Your task to perform on an android device: change the clock display to analog Image 0: 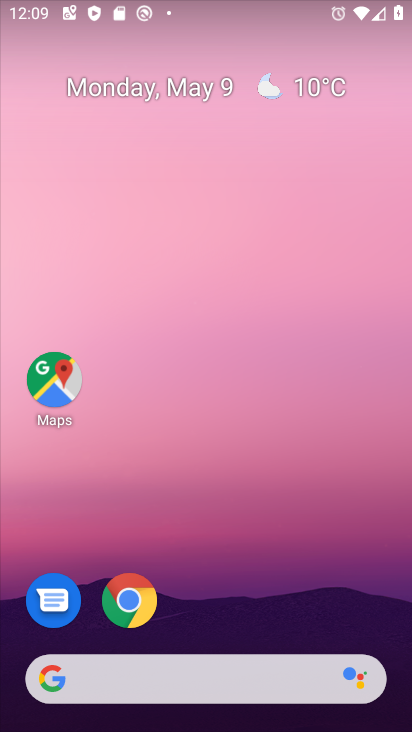
Step 0: drag from (245, 615) to (308, 179)
Your task to perform on an android device: change the clock display to analog Image 1: 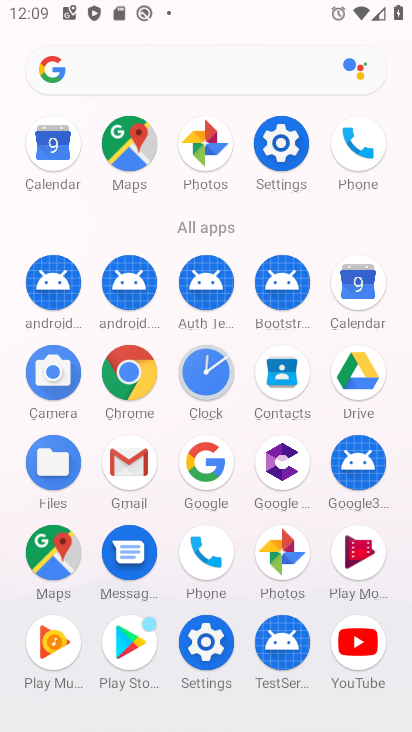
Step 1: click (216, 369)
Your task to perform on an android device: change the clock display to analog Image 2: 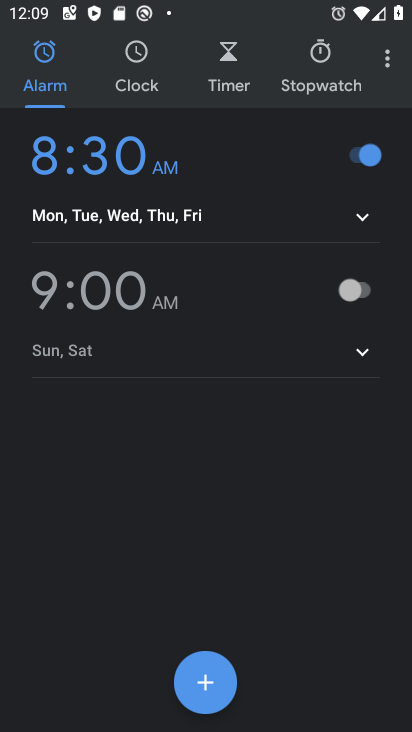
Step 2: click (385, 62)
Your task to perform on an android device: change the clock display to analog Image 3: 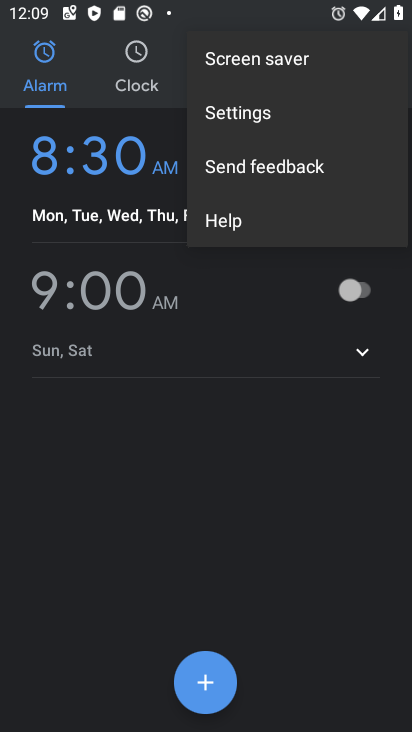
Step 3: click (237, 133)
Your task to perform on an android device: change the clock display to analog Image 4: 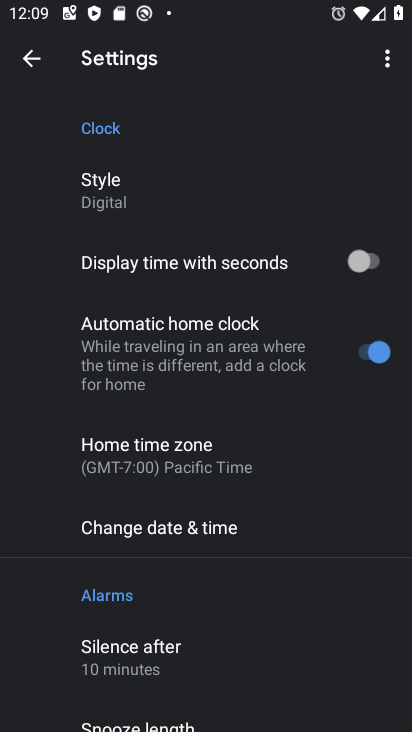
Step 4: click (131, 196)
Your task to perform on an android device: change the clock display to analog Image 5: 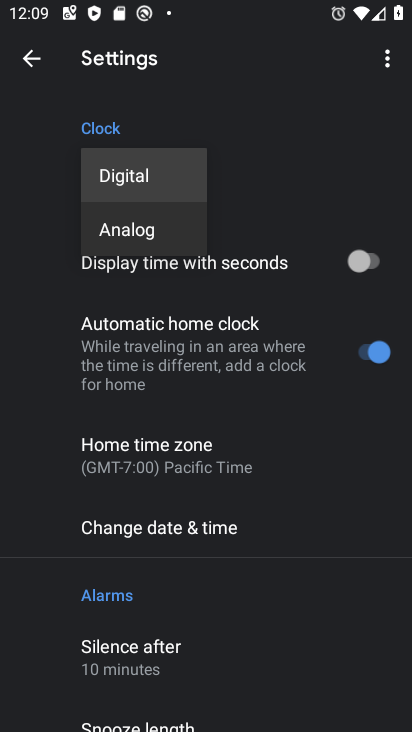
Step 5: click (149, 233)
Your task to perform on an android device: change the clock display to analog Image 6: 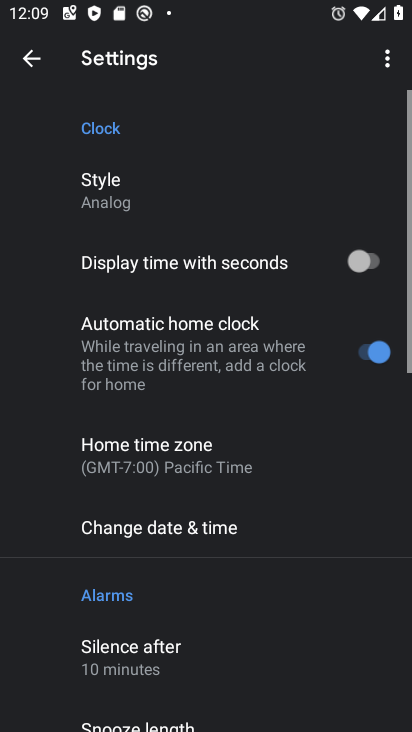
Step 6: task complete